Your task to perform on an android device: Open calendar and show me the fourth week of next month Image 0: 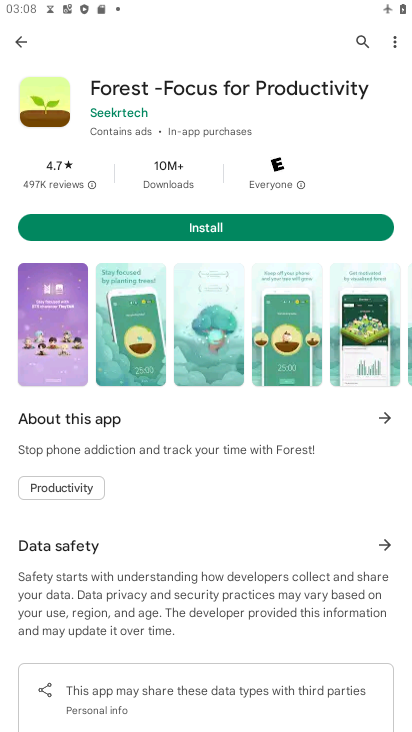
Step 0: press home button
Your task to perform on an android device: Open calendar and show me the fourth week of next month Image 1: 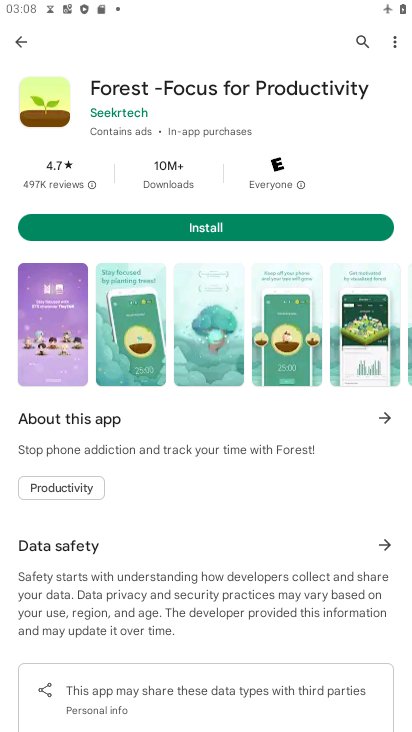
Step 1: press home button
Your task to perform on an android device: Open calendar and show me the fourth week of next month Image 2: 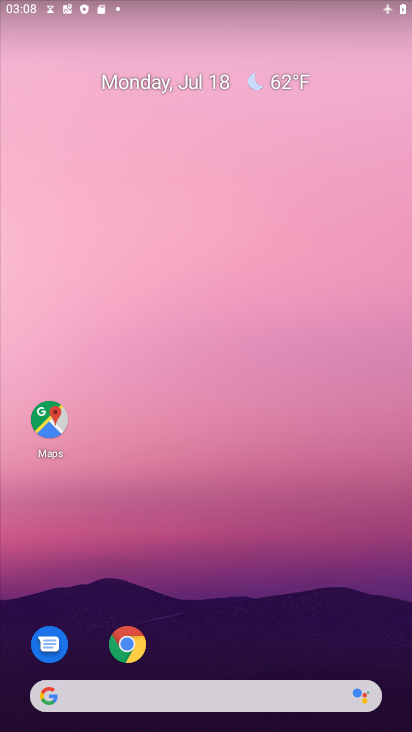
Step 2: drag from (219, 568) to (112, 8)
Your task to perform on an android device: Open calendar and show me the fourth week of next month Image 3: 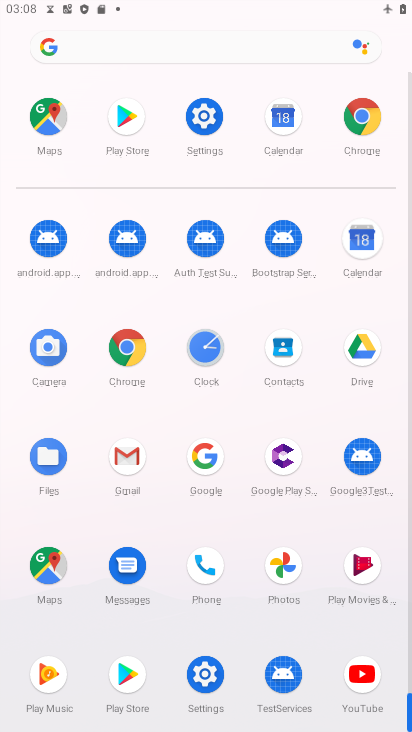
Step 3: click (352, 230)
Your task to perform on an android device: Open calendar and show me the fourth week of next month Image 4: 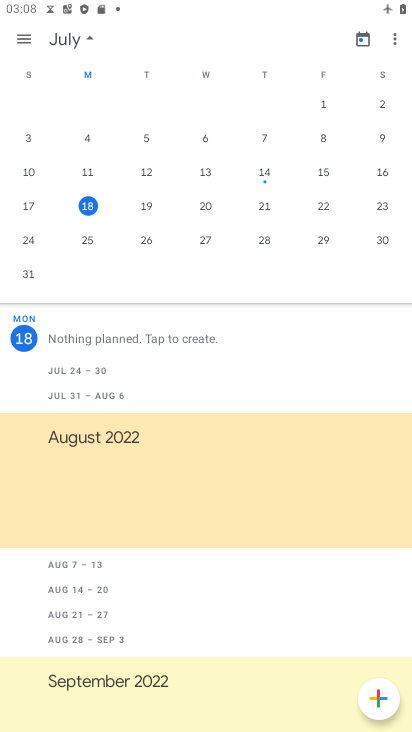
Step 4: drag from (274, 192) to (31, 269)
Your task to perform on an android device: Open calendar and show me the fourth week of next month Image 5: 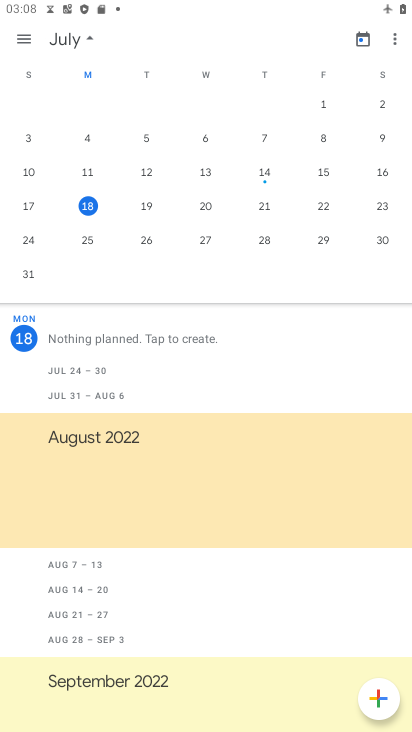
Step 5: drag from (275, 151) to (1, 160)
Your task to perform on an android device: Open calendar and show me the fourth week of next month Image 6: 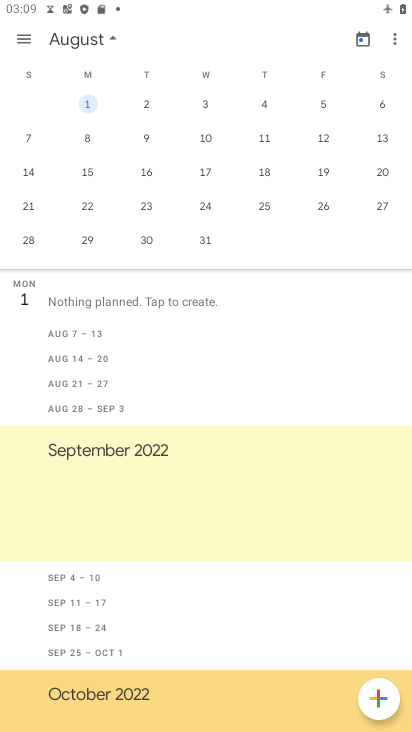
Step 6: drag from (223, 585) to (167, 238)
Your task to perform on an android device: Open calendar and show me the fourth week of next month Image 7: 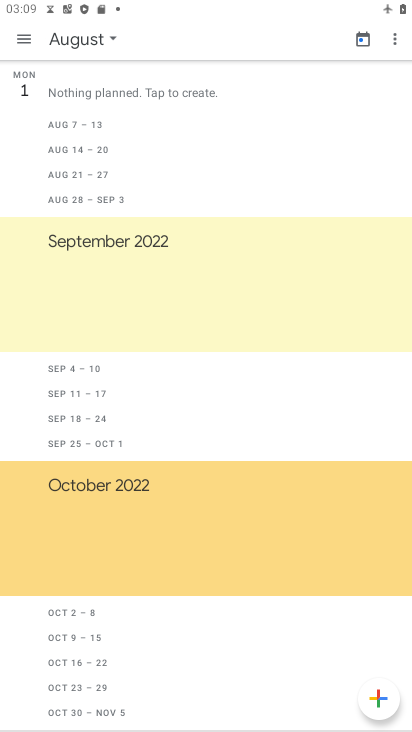
Step 7: drag from (160, 183) to (190, 423)
Your task to perform on an android device: Open calendar and show me the fourth week of next month Image 8: 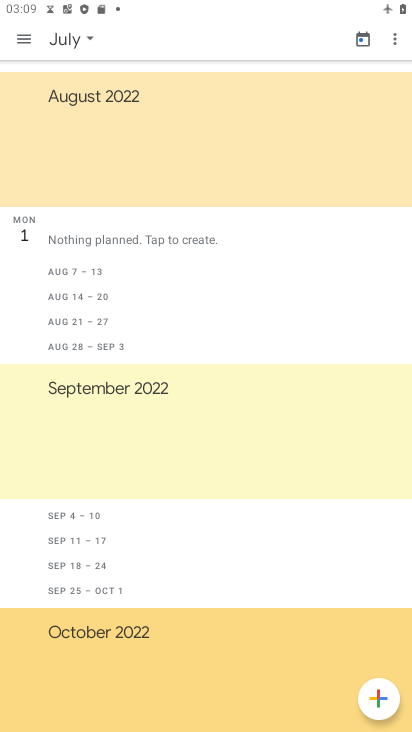
Step 8: click (89, 41)
Your task to perform on an android device: Open calendar and show me the fourth week of next month Image 9: 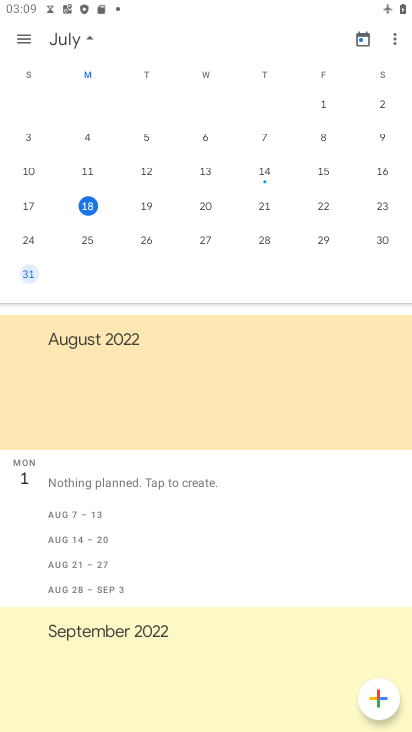
Step 9: drag from (206, 188) to (49, 186)
Your task to perform on an android device: Open calendar and show me the fourth week of next month Image 10: 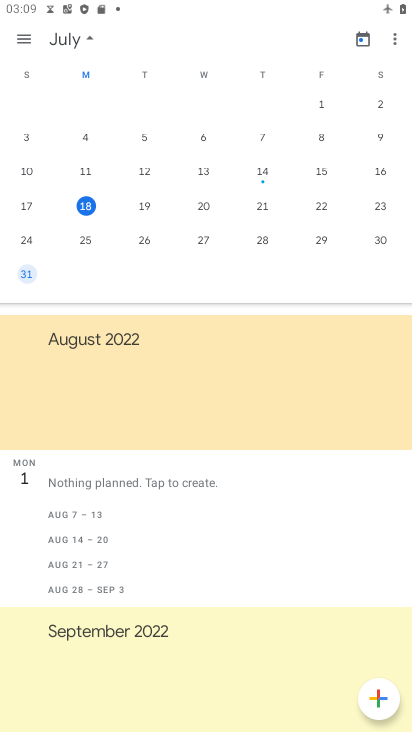
Step 10: drag from (310, 231) to (3, 391)
Your task to perform on an android device: Open calendar and show me the fourth week of next month Image 11: 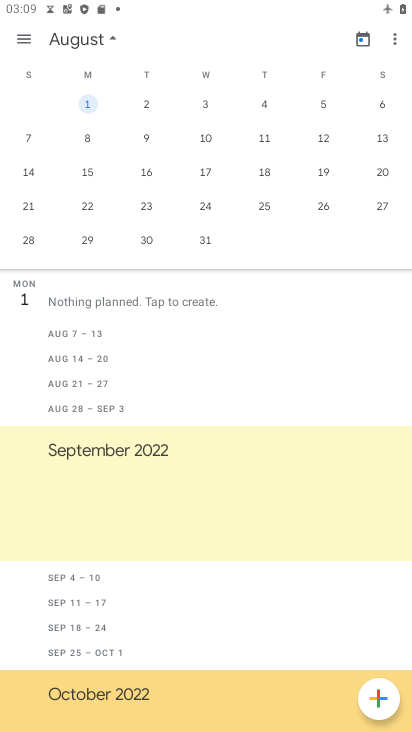
Step 11: click (142, 212)
Your task to perform on an android device: Open calendar and show me the fourth week of next month Image 12: 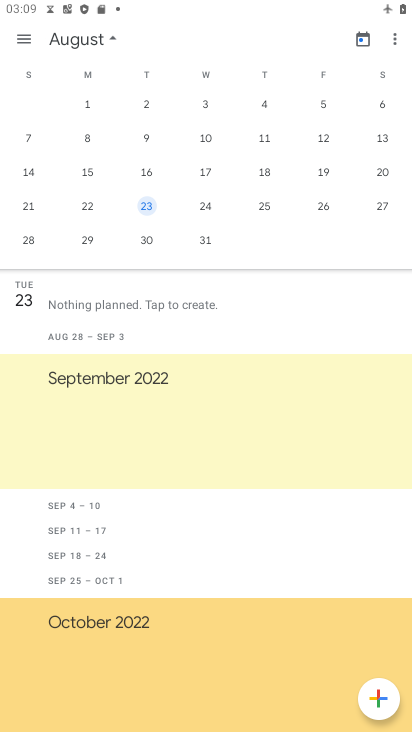
Step 12: click (141, 209)
Your task to perform on an android device: Open calendar and show me the fourth week of next month Image 13: 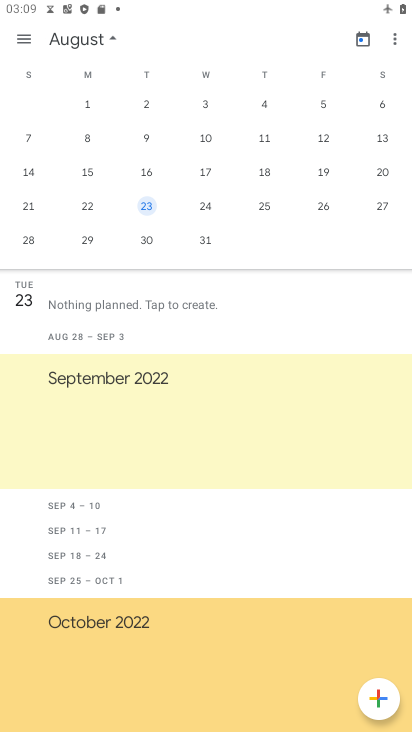
Step 13: click (141, 209)
Your task to perform on an android device: Open calendar and show me the fourth week of next month Image 14: 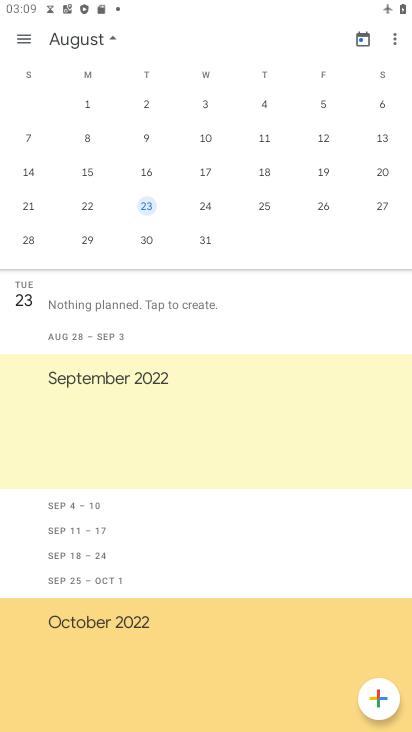
Step 14: click (142, 208)
Your task to perform on an android device: Open calendar and show me the fourth week of next month Image 15: 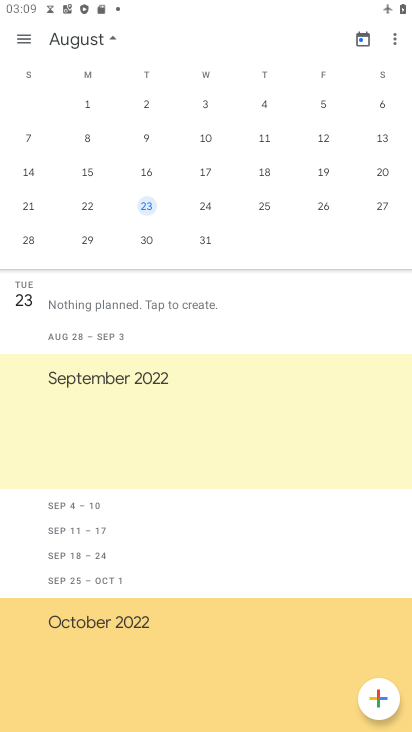
Step 15: click (144, 207)
Your task to perform on an android device: Open calendar and show me the fourth week of next month Image 16: 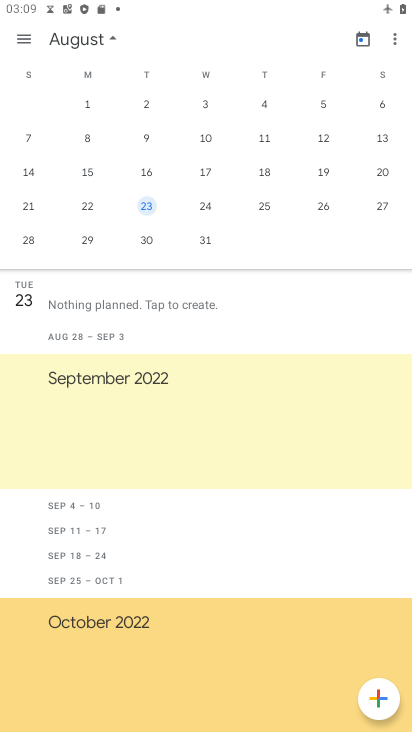
Step 16: task complete